Your task to perform on an android device: set the stopwatch Image 0: 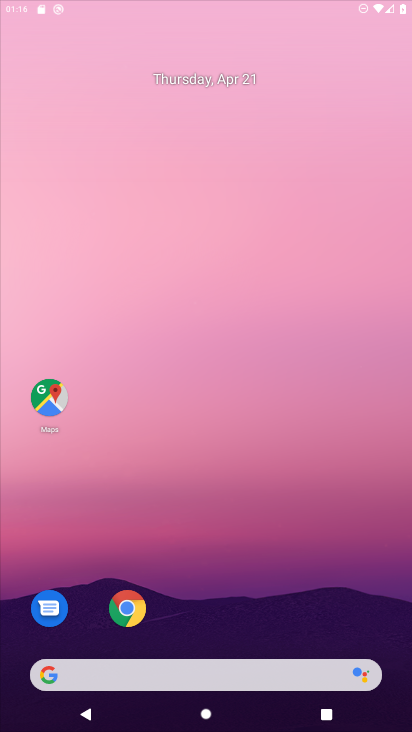
Step 0: drag from (270, 620) to (235, 194)
Your task to perform on an android device: set the stopwatch Image 1: 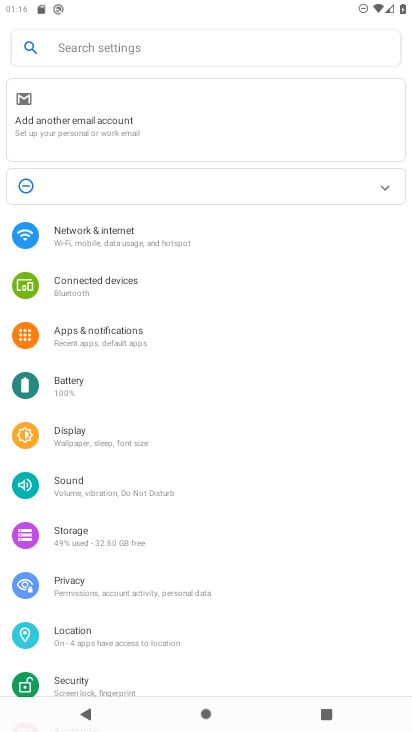
Step 1: press home button
Your task to perform on an android device: set the stopwatch Image 2: 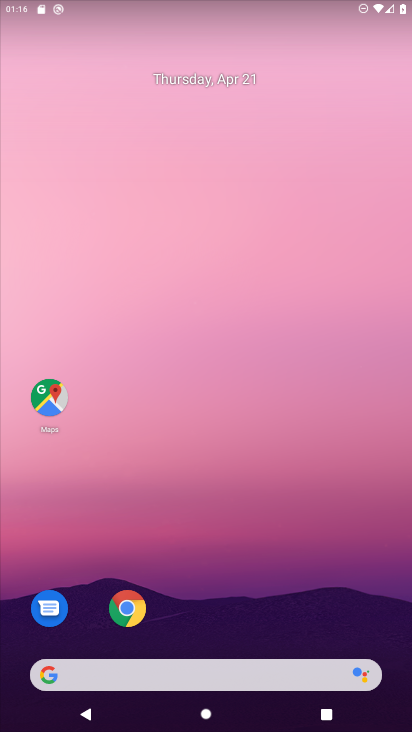
Step 2: drag from (180, 609) to (209, 188)
Your task to perform on an android device: set the stopwatch Image 3: 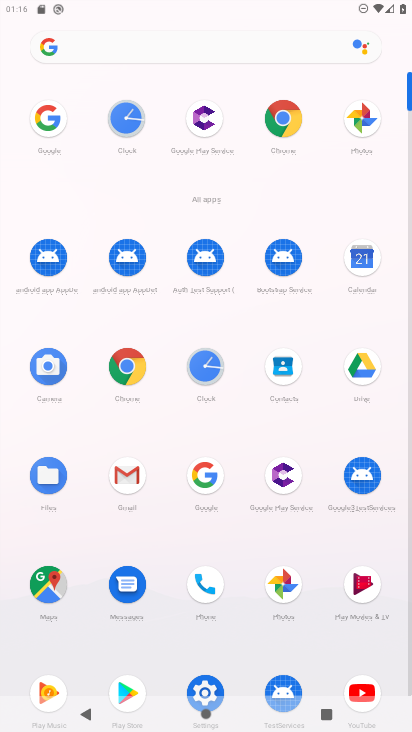
Step 3: click (206, 363)
Your task to perform on an android device: set the stopwatch Image 4: 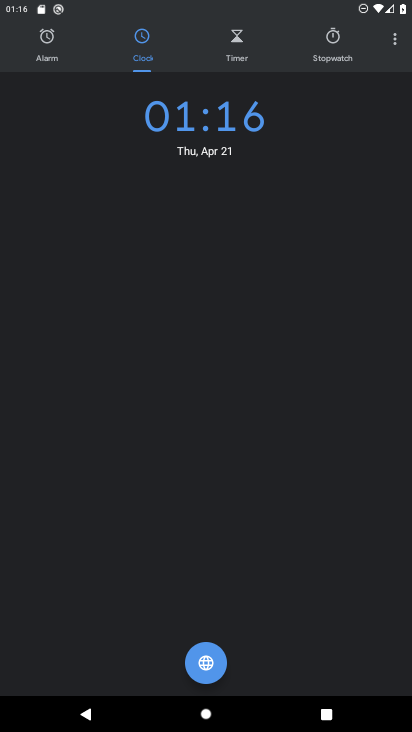
Step 4: click (389, 37)
Your task to perform on an android device: set the stopwatch Image 5: 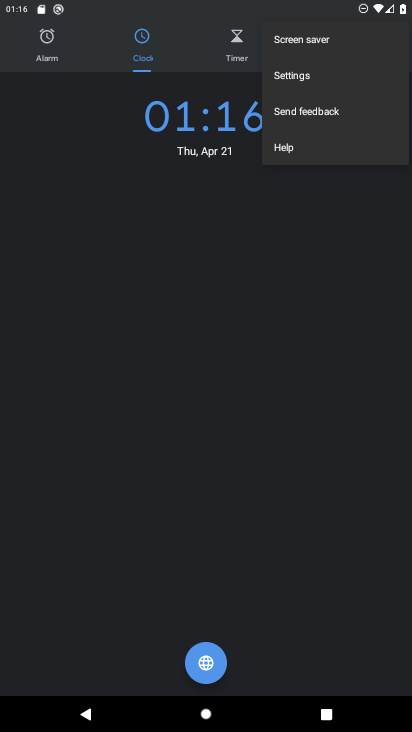
Step 5: click (319, 79)
Your task to perform on an android device: set the stopwatch Image 6: 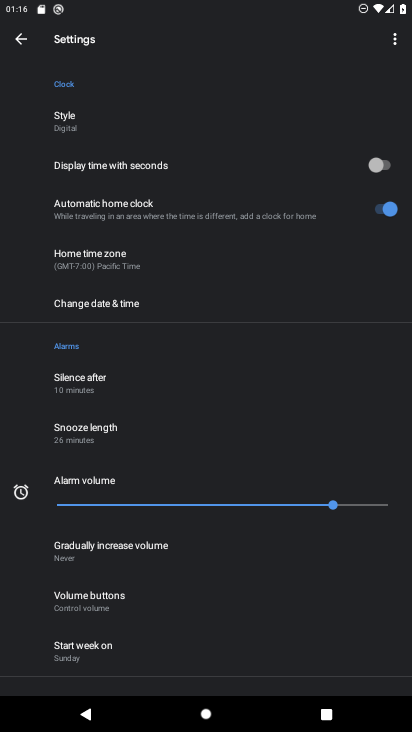
Step 6: press back button
Your task to perform on an android device: set the stopwatch Image 7: 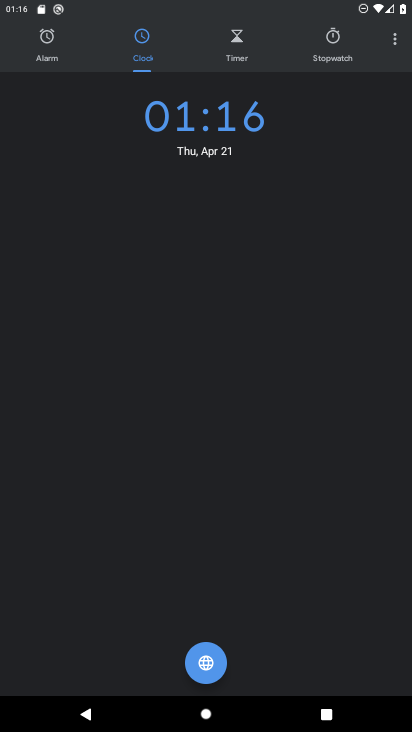
Step 7: click (324, 48)
Your task to perform on an android device: set the stopwatch Image 8: 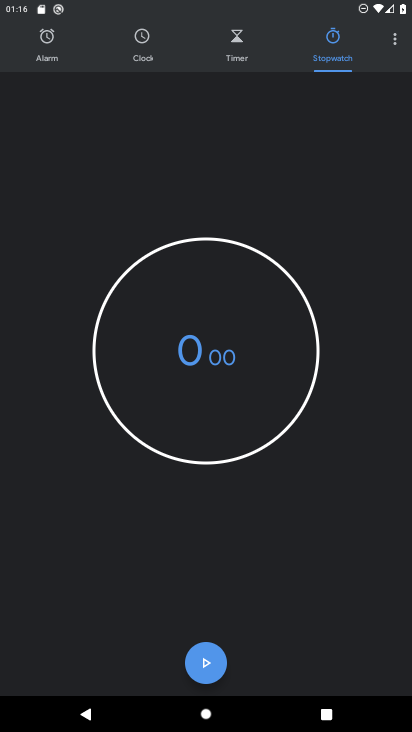
Step 8: click (197, 663)
Your task to perform on an android device: set the stopwatch Image 9: 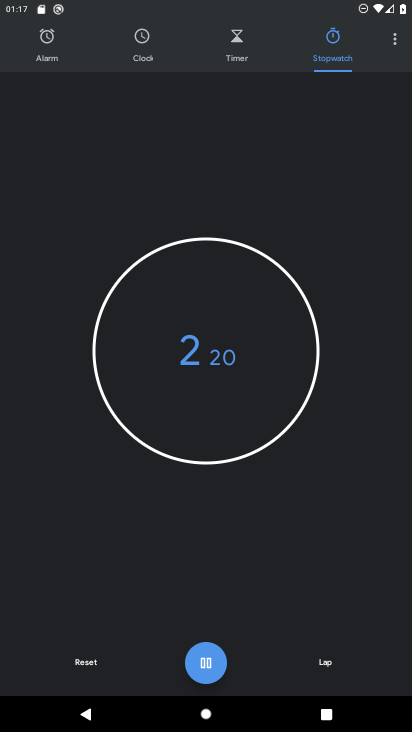
Step 9: click (192, 661)
Your task to perform on an android device: set the stopwatch Image 10: 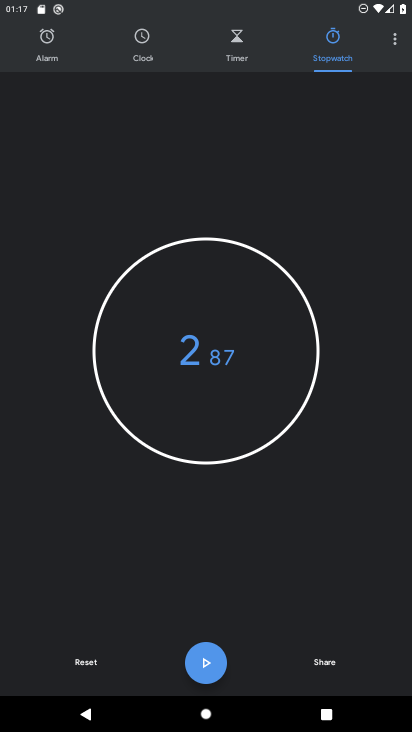
Step 10: click (96, 661)
Your task to perform on an android device: set the stopwatch Image 11: 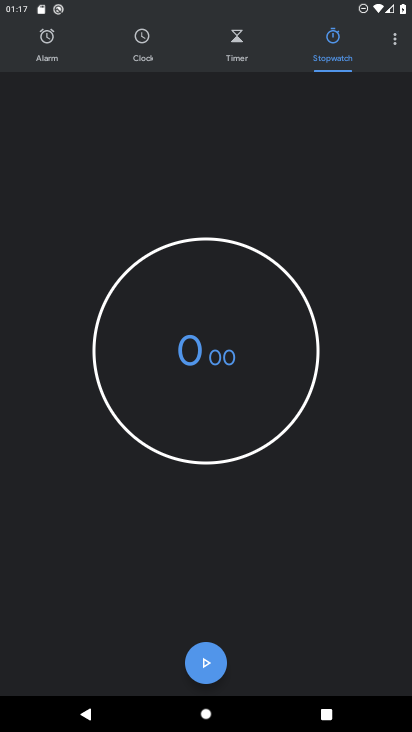
Step 11: task complete